Your task to perform on an android device: Open privacy settings Image 0: 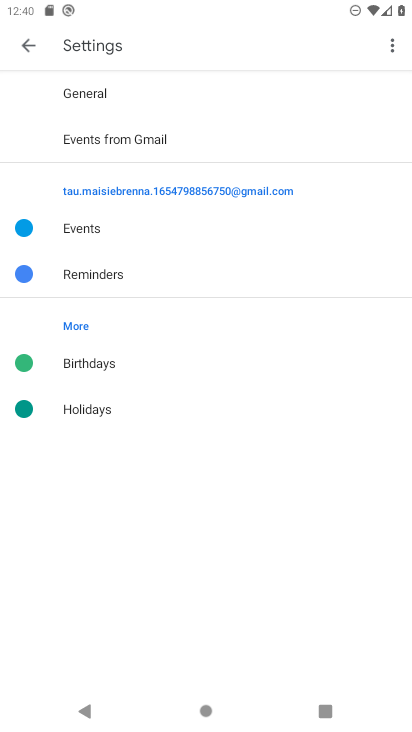
Step 0: press home button
Your task to perform on an android device: Open privacy settings Image 1: 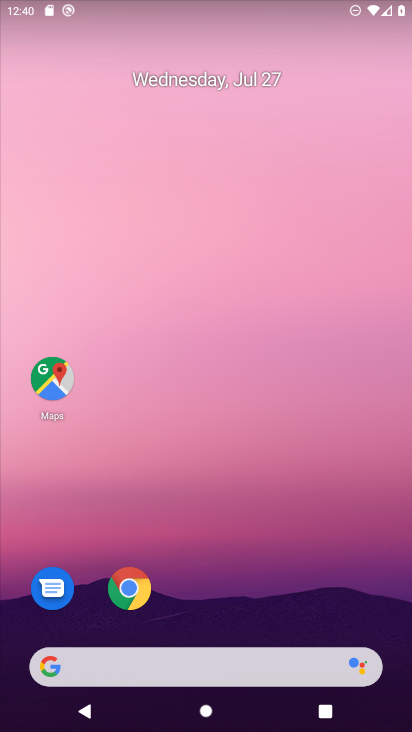
Step 1: drag from (30, 686) to (193, 62)
Your task to perform on an android device: Open privacy settings Image 2: 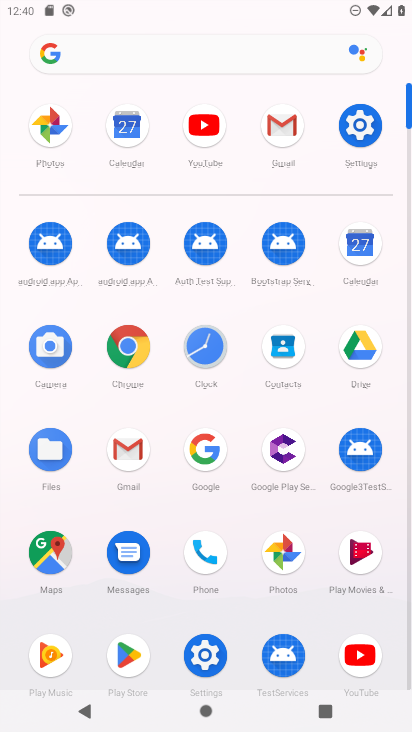
Step 2: click (202, 644)
Your task to perform on an android device: Open privacy settings Image 3: 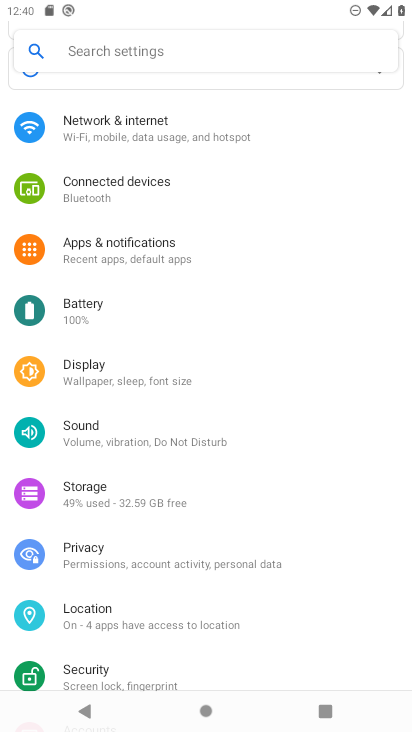
Step 3: click (104, 539)
Your task to perform on an android device: Open privacy settings Image 4: 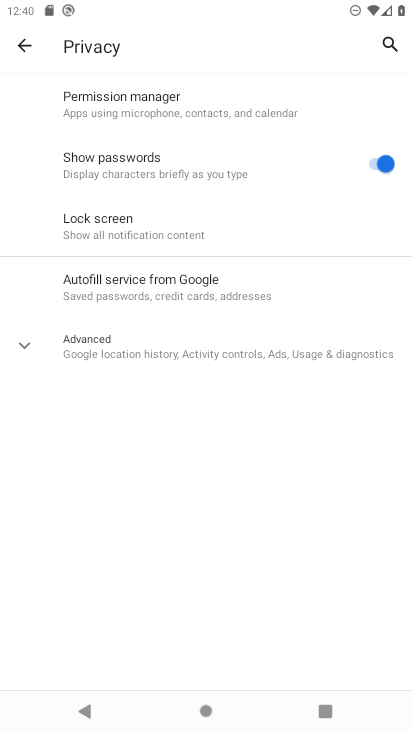
Step 4: task complete